Your task to perform on an android device: Open Google Maps and go to "Timeline" Image 0: 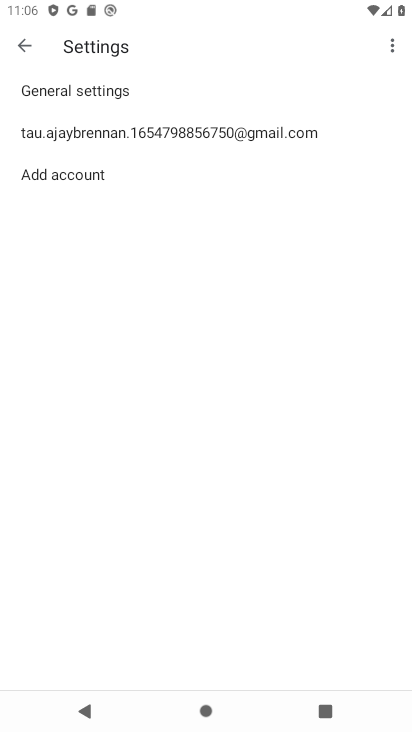
Step 0: press home button
Your task to perform on an android device: Open Google Maps and go to "Timeline" Image 1: 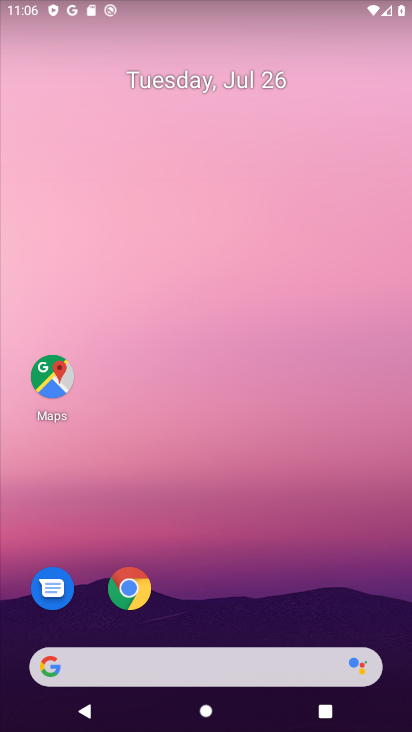
Step 1: click (49, 375)
Your task to perform on an android device: Open Google Maps and go to "Timeline" Image 2: 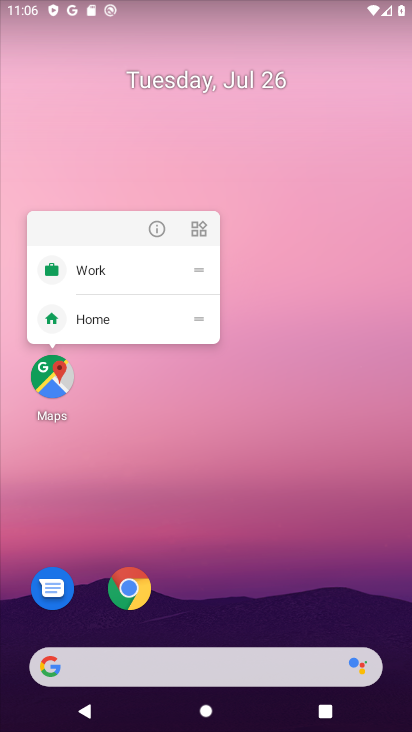
Step 2: click (49, 377)
Your task to perform on an android device: Open Google Maps and go to "Timeline" Image 3: 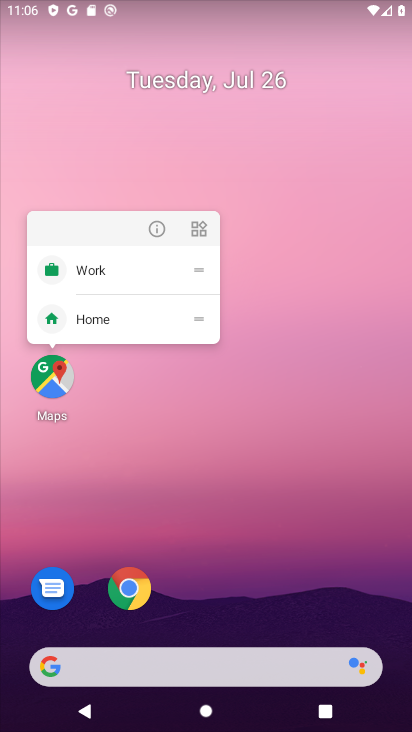
Step 3: click (52, 374)
Your task to perform on an android device: Open Google Maps and go to "Timeline" Image 4: 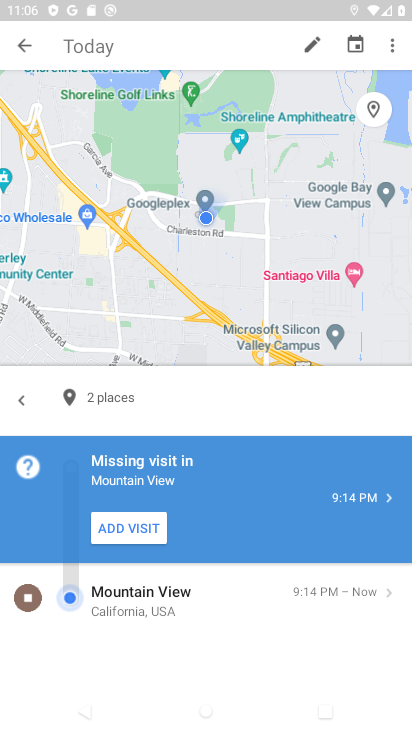
Step 4: click (24, 48)
Your task to perform on an android device: Open Google Maps and go to "Timeline" Image 5: 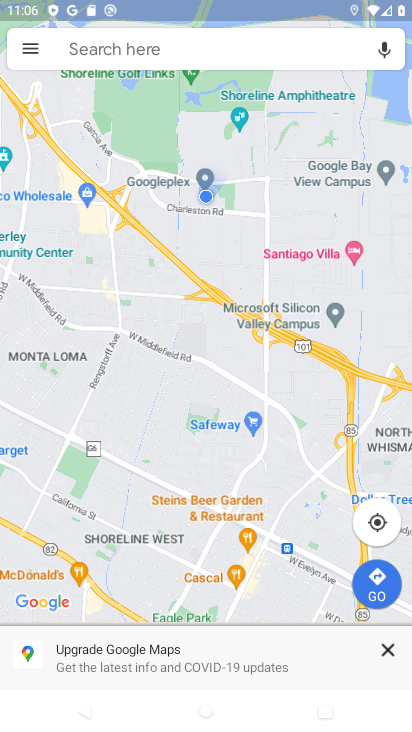
Step 5: click (24, 48)
Your task to perform on an android device: Open Google Maps and go to "Timeline" Image 6: 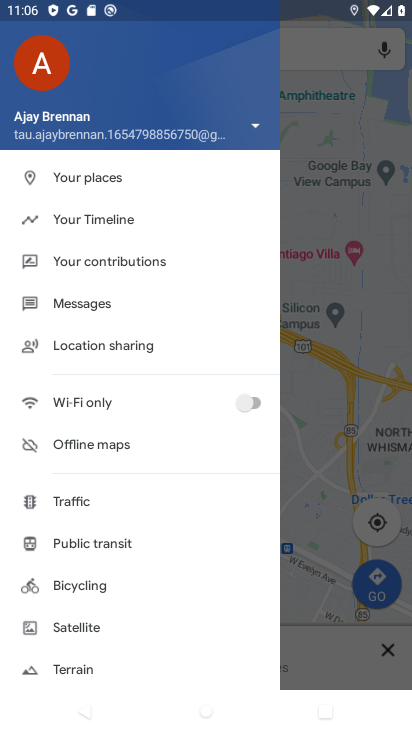
Step 6: click (132, 213)
Your task to perform on an android device: Open Google Maps and go to "Timeline" Image 7: 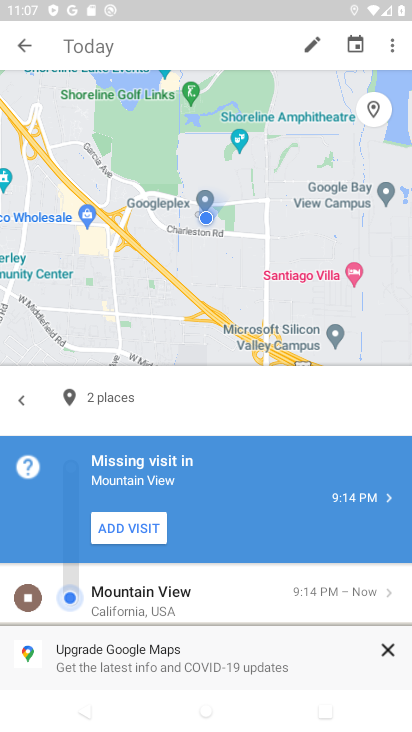
Step 7: task complete